Your task to perform on an android device: find snoozed emails in the gmail app Image 0: 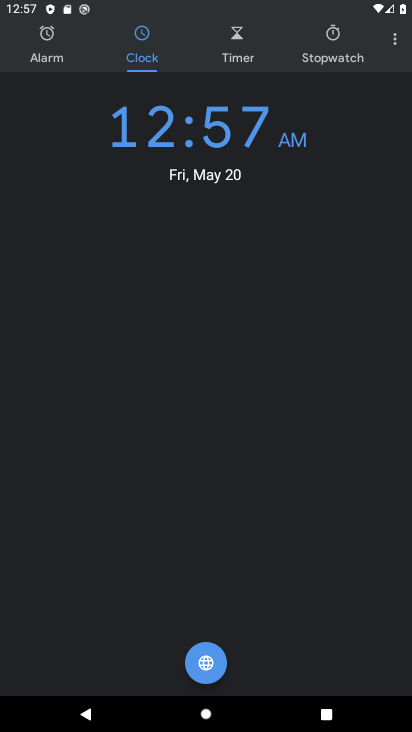
Step 0: press home button
Your task to perform on an android device: find snoozed emails in the gmail app Image 1: 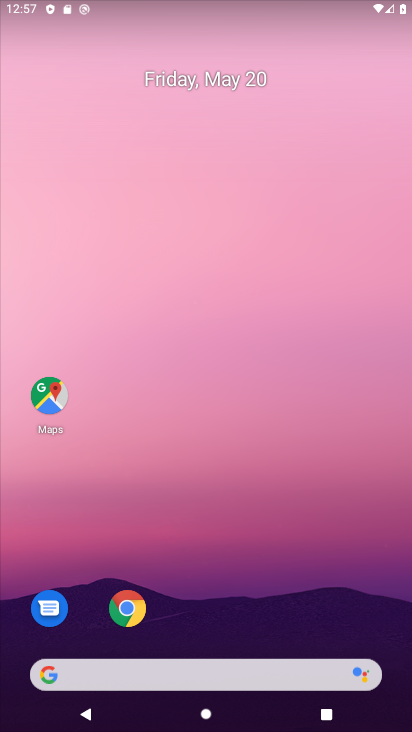
Step 1: drag from (248, 594) to (216, 77)
Your task to perform on an android device: find snoozed emails in the gmail app Image 2: 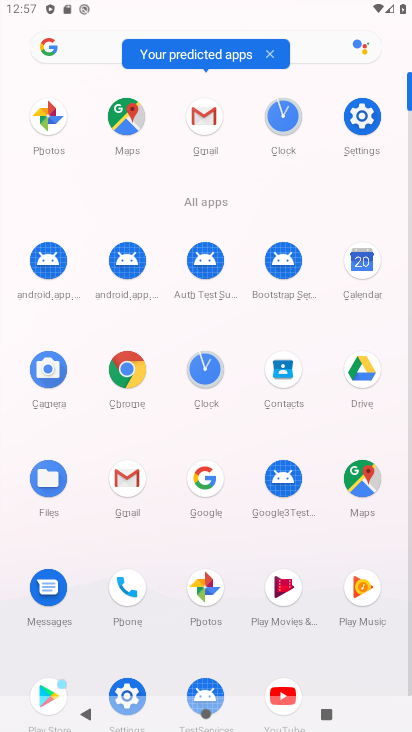
Step 2: click (122, 491)
Your task to perform on an android device: find snoozed emails in the gmail app Image 3: 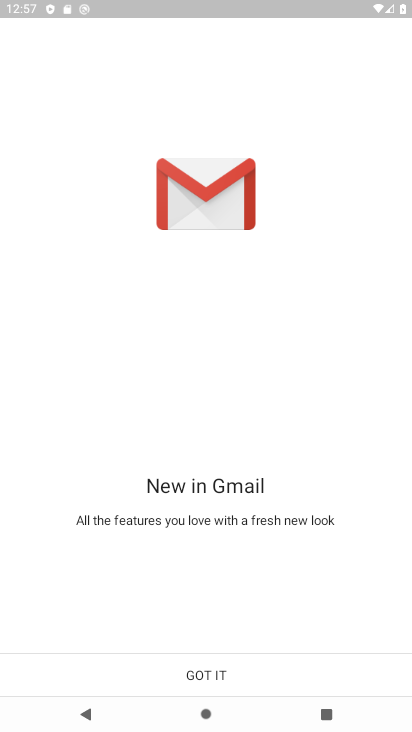
Step 3: click (216, 679)
Your task to perform on an android device: find snoozed emails in the gmail app Image 4: 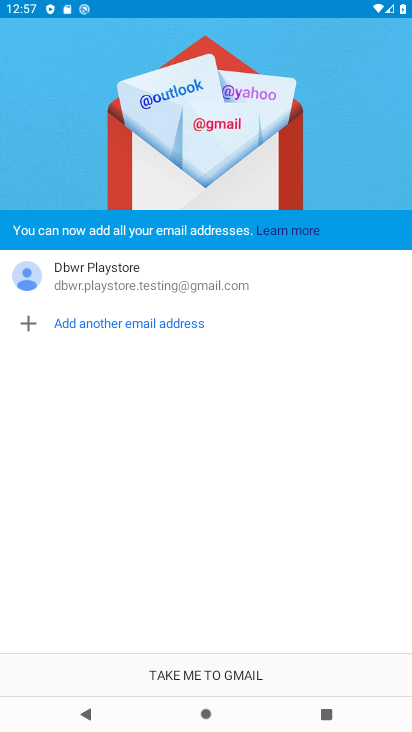
Step 4: click (216, 680)
Your task to perform on an android device: find snoozed emails in the gmail app Image 5: 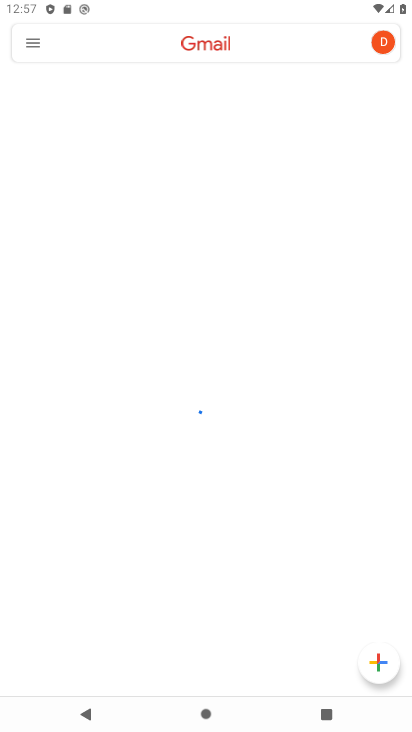
Step 5: click (26, 45)
Your task to perform on an android device: find snoozed emails in the gmail app Image 6: 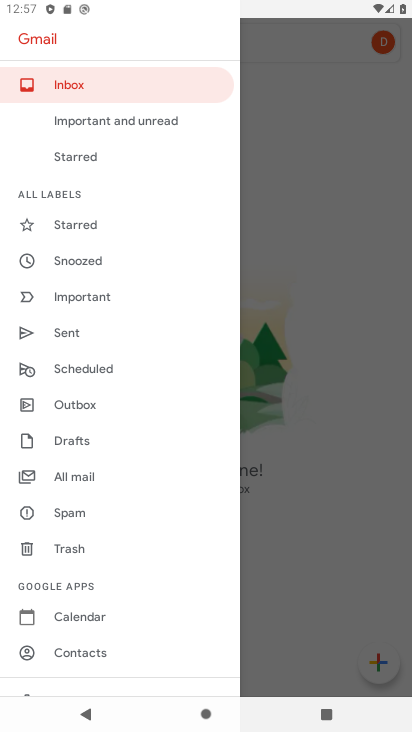
Step 6: click (111, 262)
Your task to perform on an android device: find snoozed emails in the gmail app Image 7: 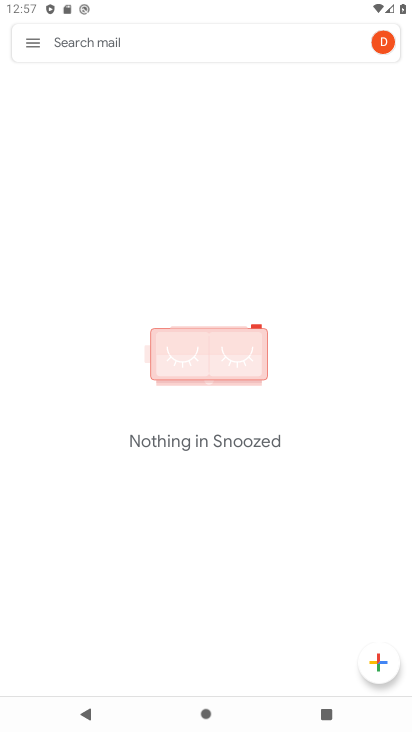
Step 7: task complete